Your task to perform on an android device: open app "Google Pay: Save, Pay, Manage" (install if not already installed) Image 0: 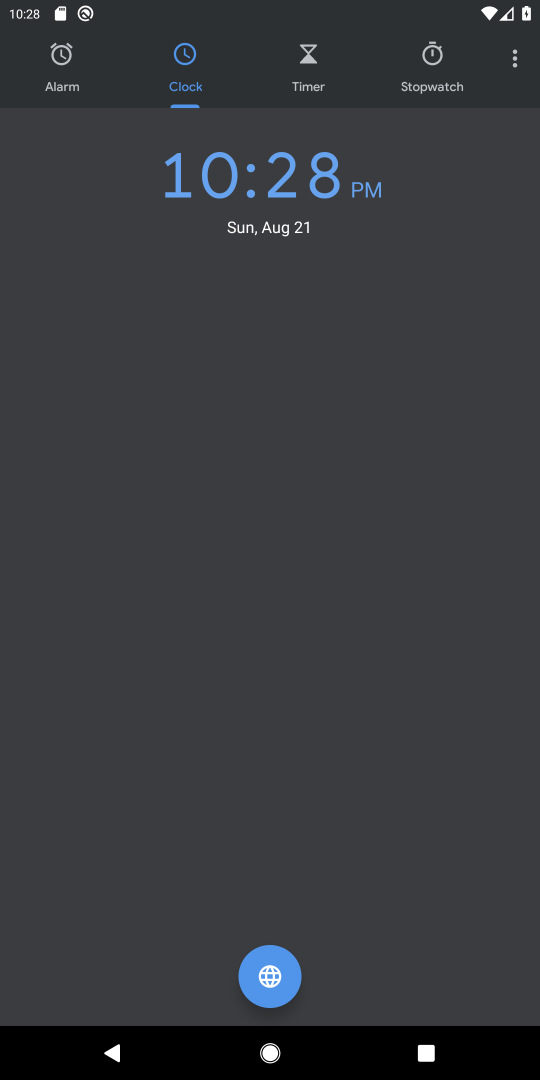
Step 0: press home button
Your task to perform on an android device: open app "Google Pay: Save, Pay, Manage" (install if not already installed) Image 1: 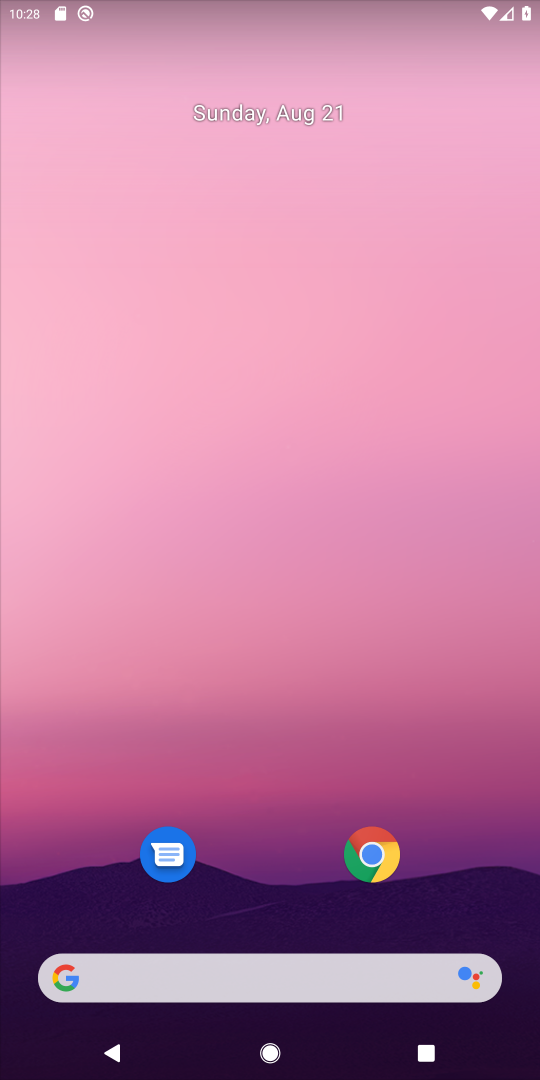
Step 1: drag from (254, 933) to (288, 170)
Your task to perform on an android device: open app "Google Pay: Save, Pay, Manage" (install if not already installed) Image 2: 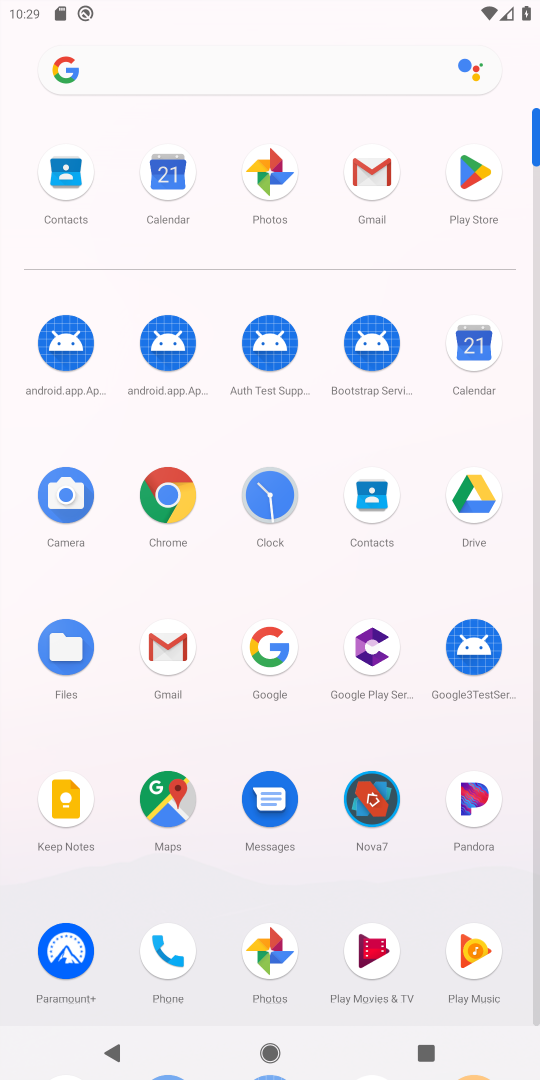
Step 2: click (463, 180)
Your task to perform on an android device: open app "Google Pay: Save, Pay, Manage" (install if not already installed) Image 3: 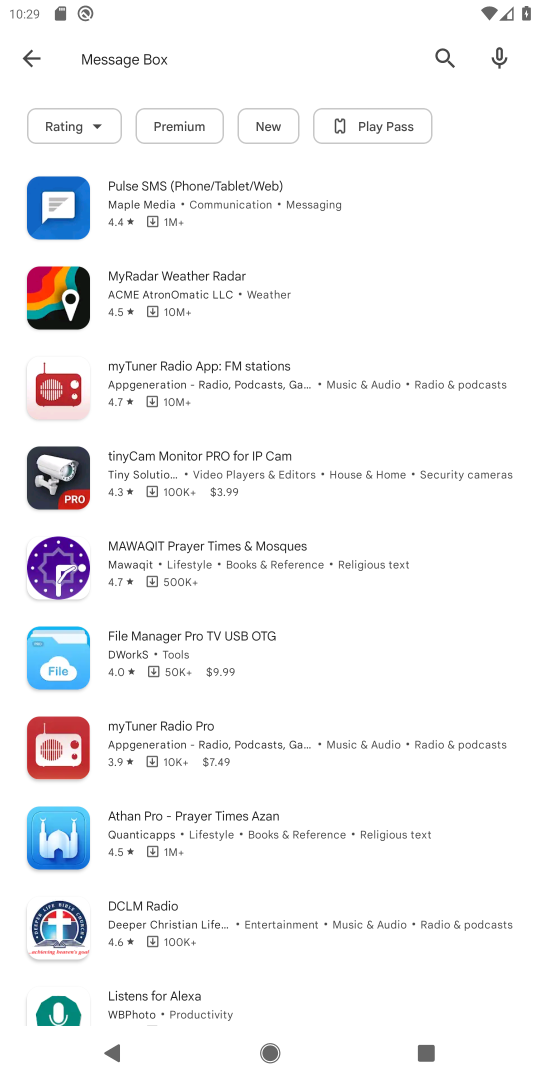
Step 3: click (435, 52)
Your task to perform on an android device: open app "Google Pay: Save, Pay, Manage" (install if not already installed) Image 4: 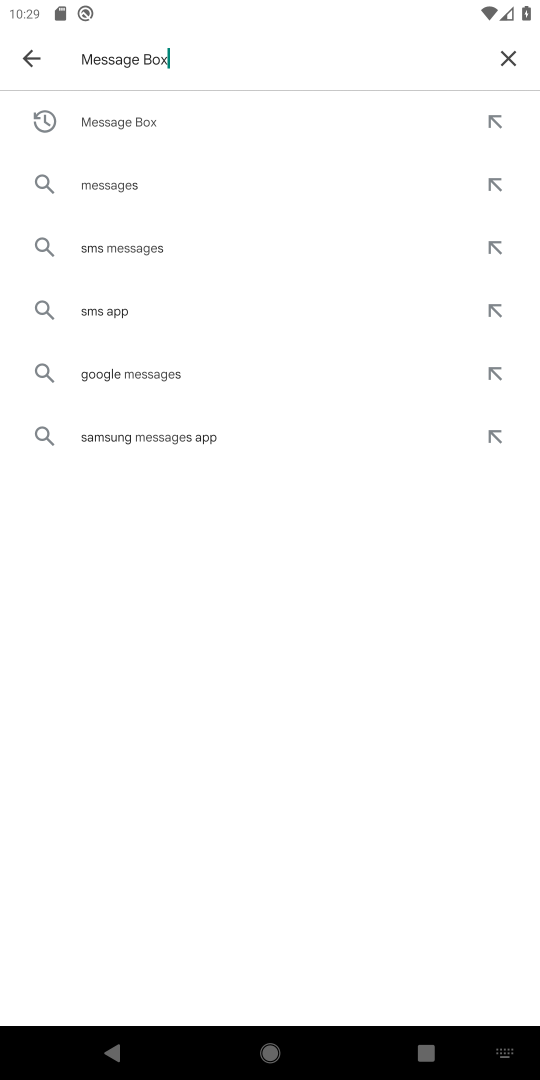
Step 4: task complete